Your task to perform on an android device: toggle priority inbox in the gmail app Image 0: 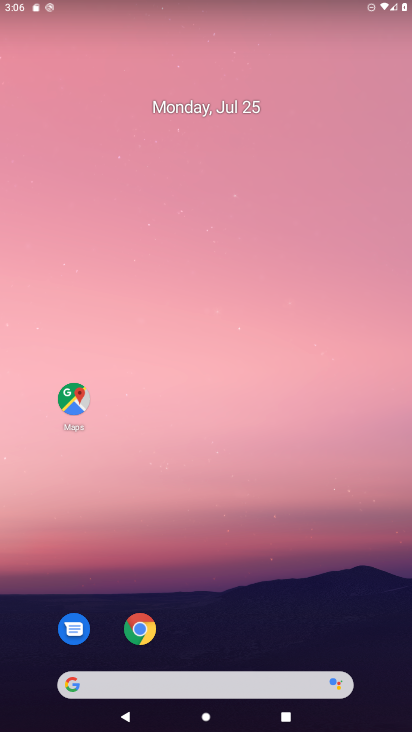
Step 0: drag from (289, 604) to (222, 86)
Your task to perform on an android device: toggle priority inbox in the gmail app Image 1: 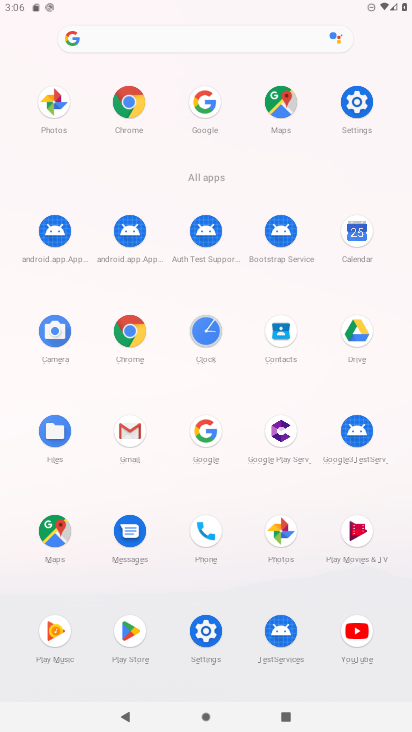
Step 1: click (127, 435)
Your task to perform on an android device: toggle priority inbox in the gmail app Image 2: 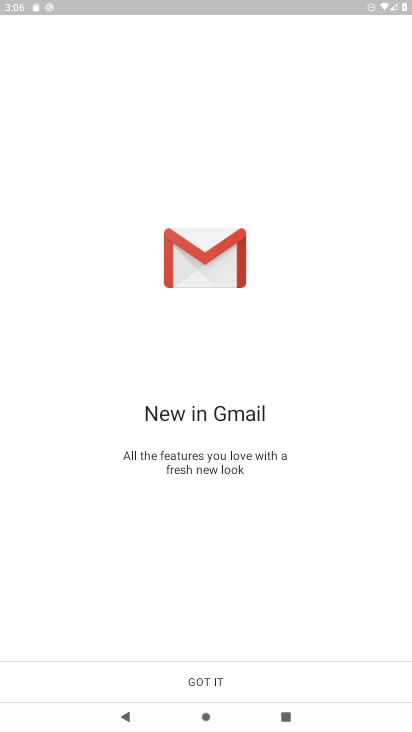
Step 2: click (293, 678)
Your task to perform on an android device: toggle priority inbox in the gmail app Image 3: 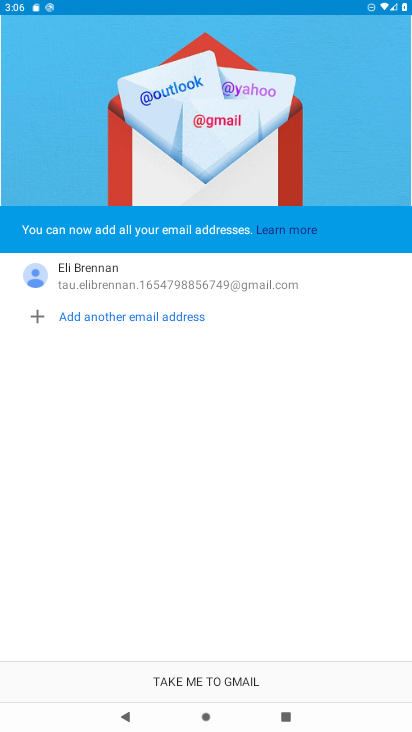
Step 3: click (293, 678)
Your task to perform on an android device: toggle priority inbox in the gmail app Image 4: 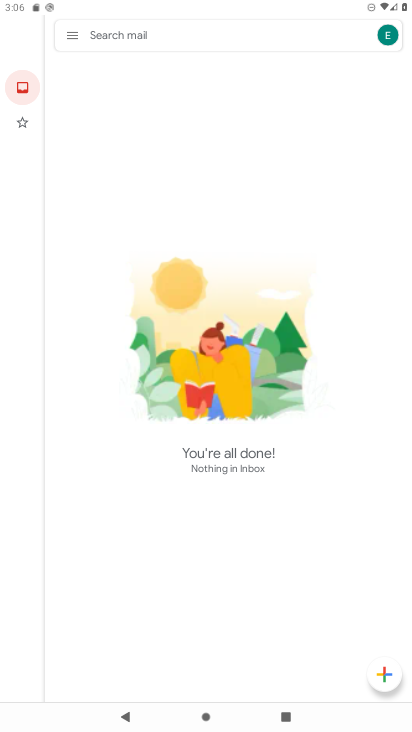
Step 4: click (73, 35)
Your task to perform on an android device: toggle priority inbox in the gmail app Image 5: 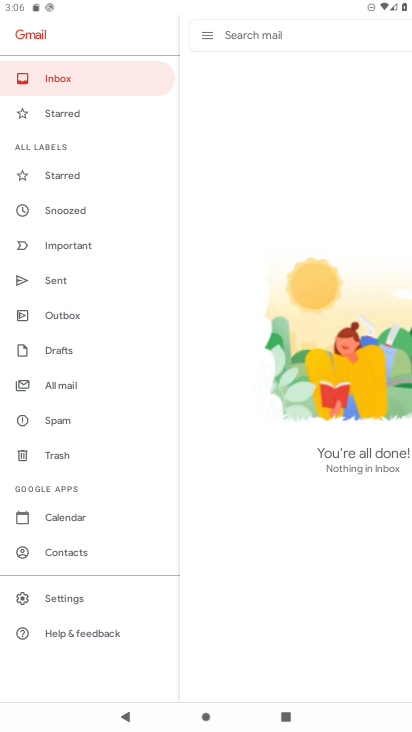
Step 5: click (73, 35)
Your task to perform on an android device: toggle priority inbox in the gmail app Image 6: 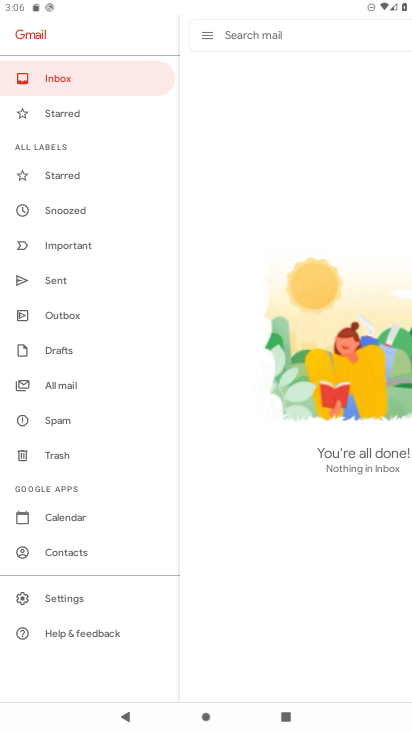
Step 6: click (59, 604)
Your task to perform on an android device: toggle priority inbox in the gmail app Image 7: 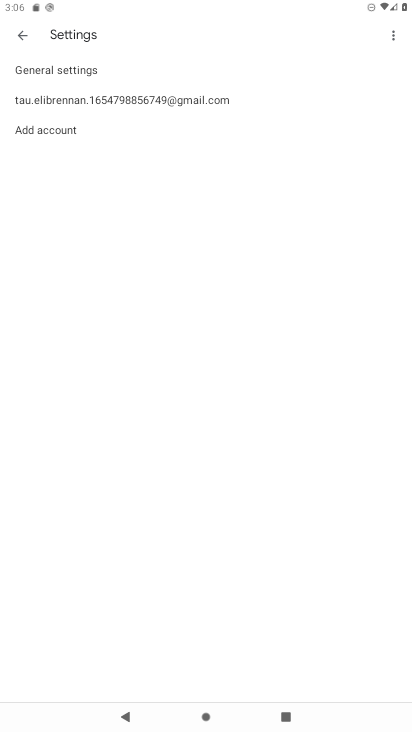
Step 7: click (247, 99)
Your task to perform on an android device: toggle priority inbox in the gmail app Image 8: 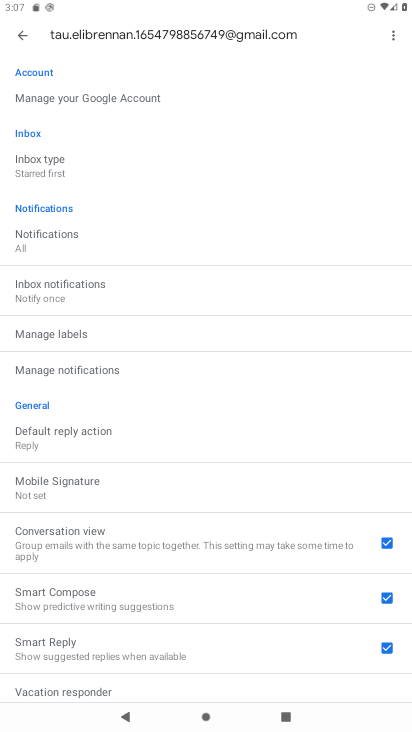
Step 8: click (60, 169)
Your task to perform on an android device: toggle priority inbox in the gmail app Image 9: 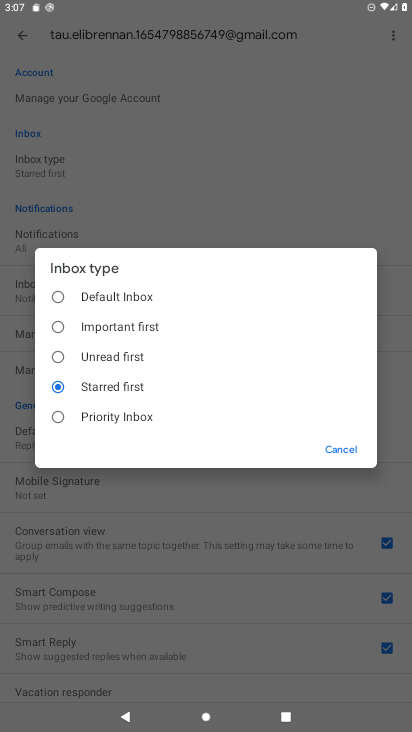
Step 9: click (90, 418)
Your task to perform on an android device: toggle priority inbox in the gmail app Image 10: 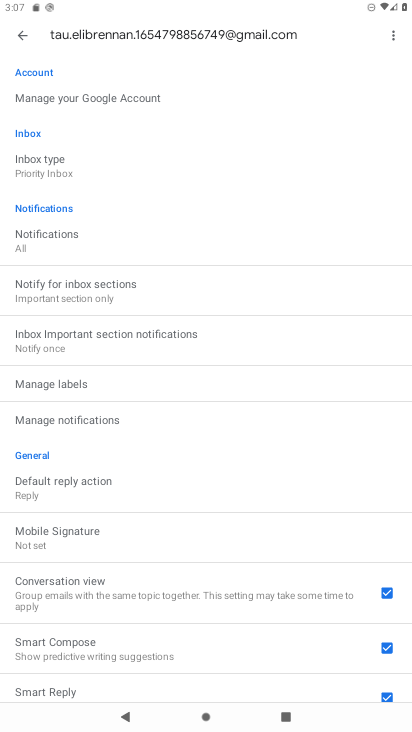
Step 10: task complete